Your task to perform on an android device: change timer sound Image 0: 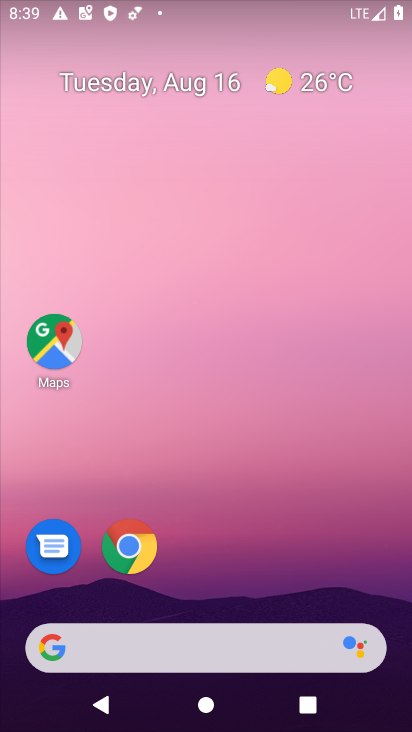
Step 0: drag from (261, 551) to (256, 22)
Your task to perform on an android device: change timer sound Image 1: 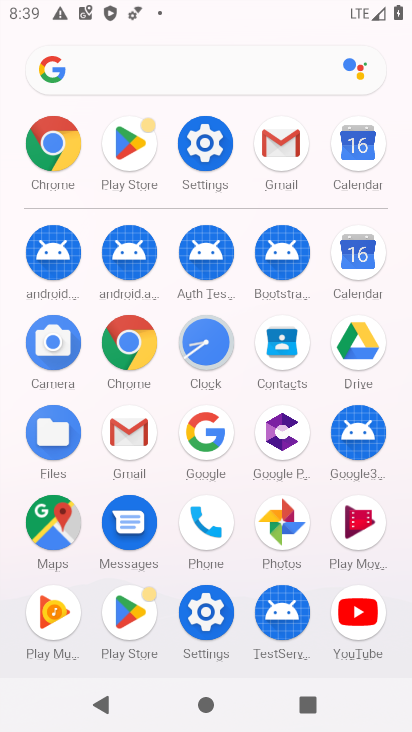
Step 1: click (205, 332)
Your task to perform on an android device: change timer sound Image 2: 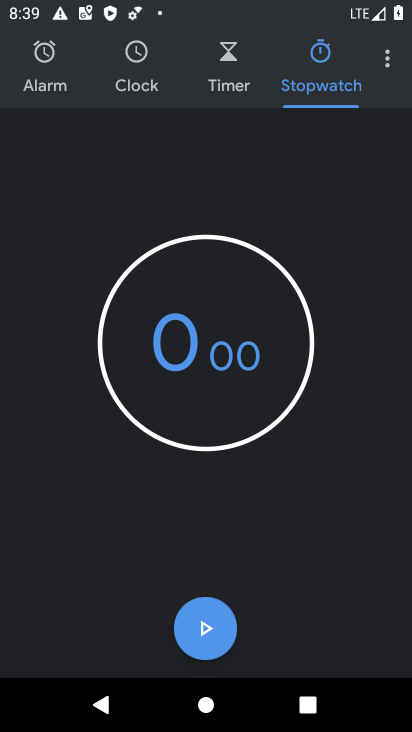
Step 2: click (388, 55)
Your task to perform on an android device: change timer sound Image 3: 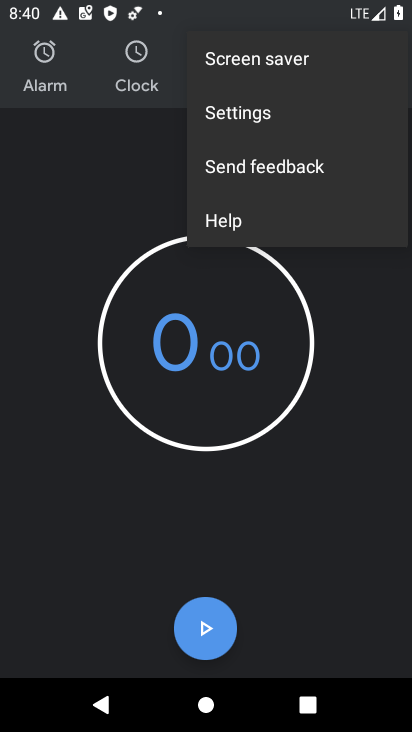
Step 3: click (283, 110)
Your task to perform on an android device: change timer sound Image 4: 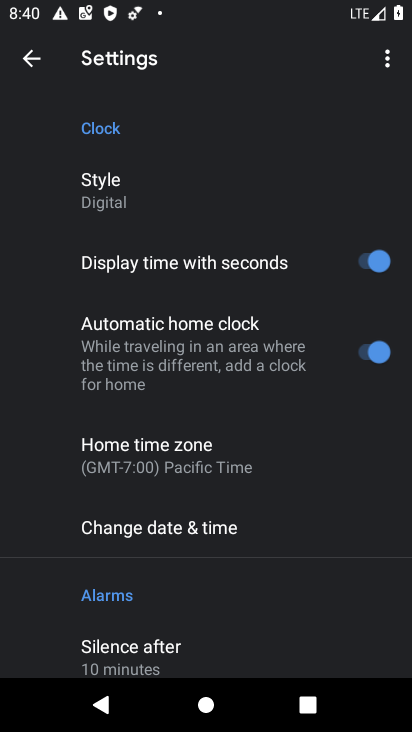
Step 4: drag from (198, 572) to (218, 11)
Your task to perform on an android device: change timer sound Image 5: 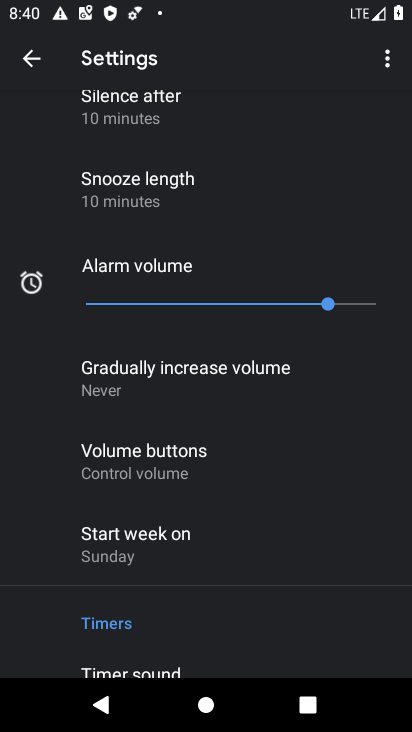
Step 5: drag from (231, 503) to (258, 141)
Your task to perform on an android device: change timer sound Image 6: 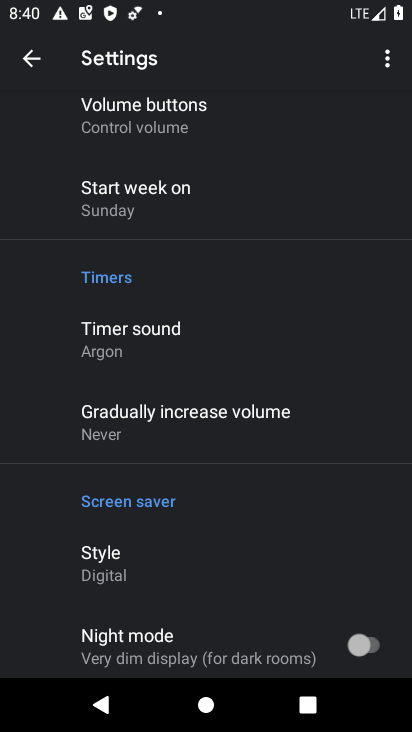
Step 6: click (137, 326)
Your task to perform on an android device: change timer sound Image 7: 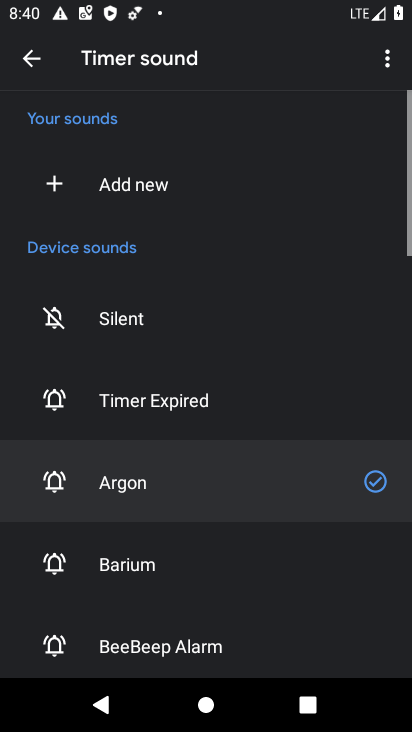
Step 7: click (113, 571)
Your task to perform on an android device: change timer sound Image 8: 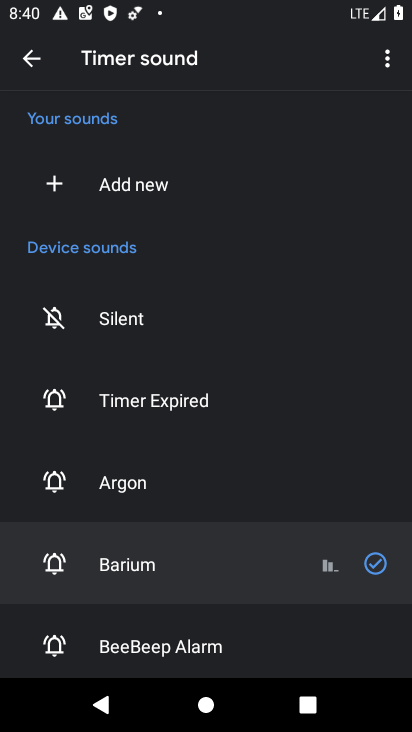
Step 8: task complete